Your task to perform on an android device: Clear the cart on walmart. Search for "logitech g933" on walmart, select the first entry, and add it to the cart. Image 0: 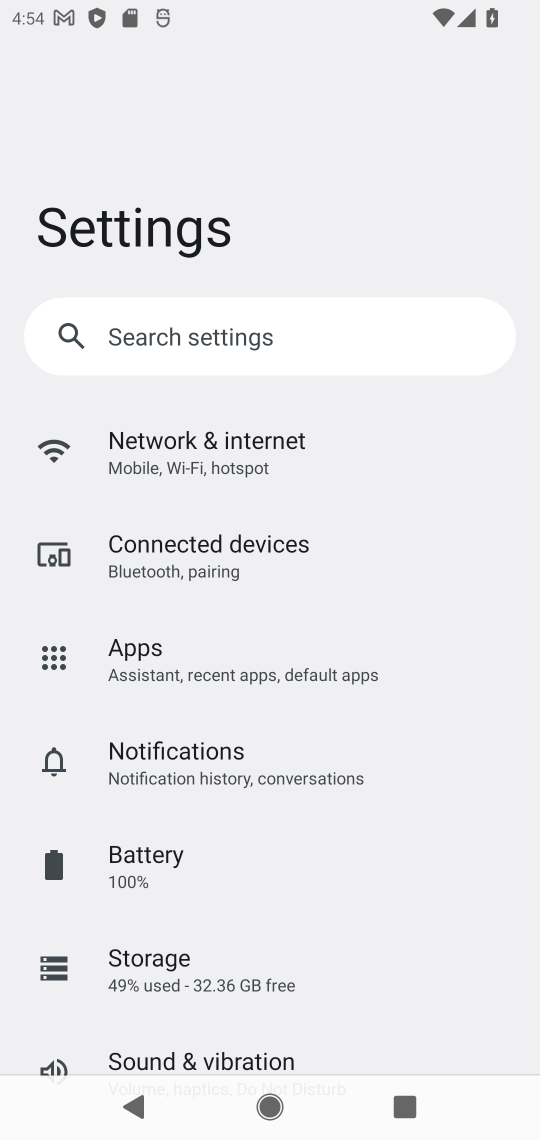
Step 0: press home button
Your task to perform on an android device: Clear the cart on walmart. Search for "logitech g933" on walmart, select the first entry, and add it to the cart. Image 1: 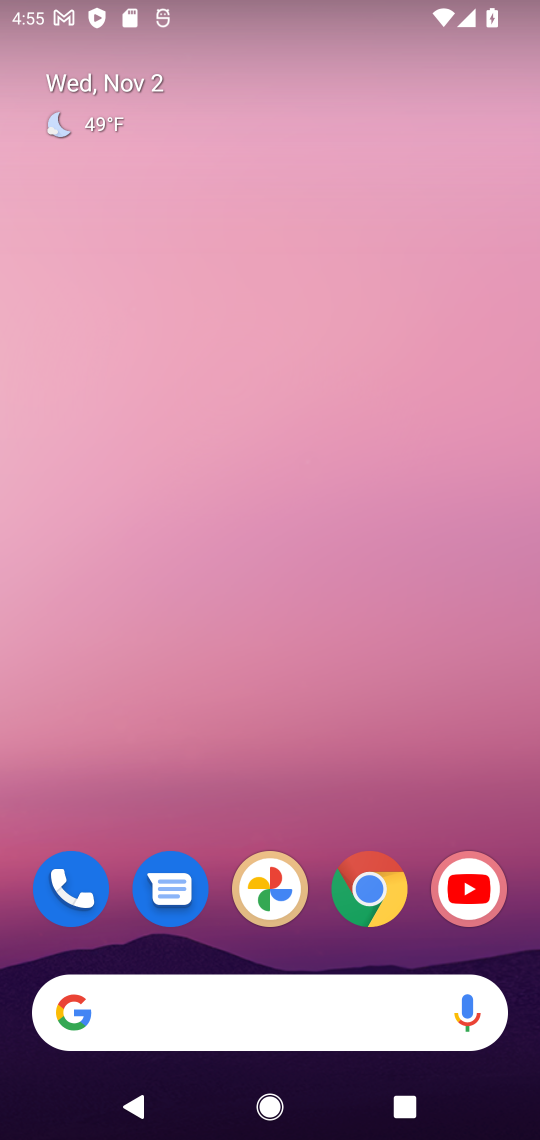
Step 1: click (377, 878)
Your task to perform on an android device: Clear the cart on walmart. Search for "logitech g933" on walmart, select the first entry, and add it to the cart. Image 2: 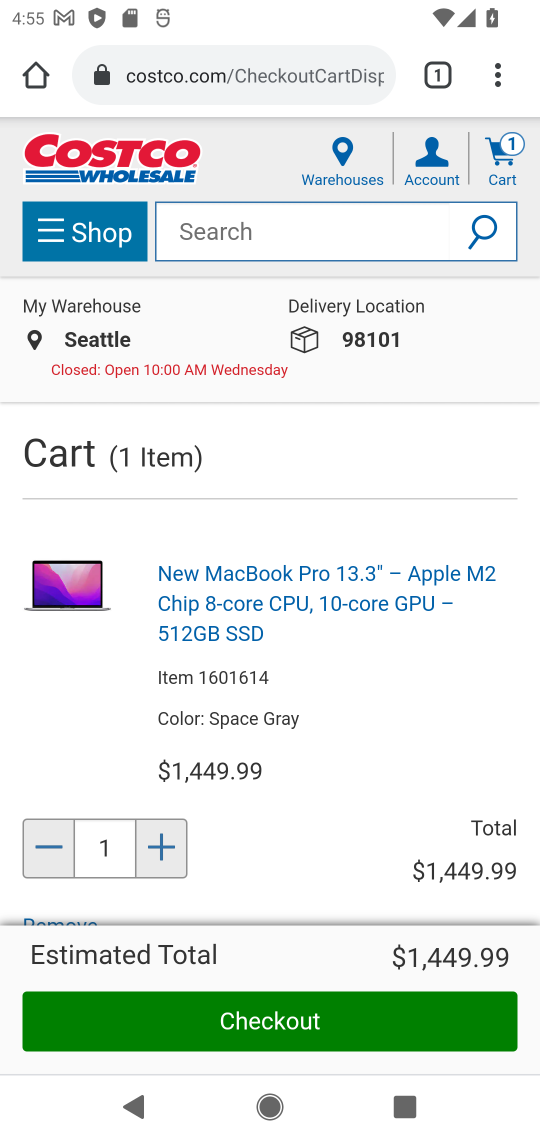
Step 2: click (312, 77)
Your task to perform on an android device: Clear the cart on walmart. Search for "logitech g933" on walmart, select the first entry, and add it to the cart. Image 3: 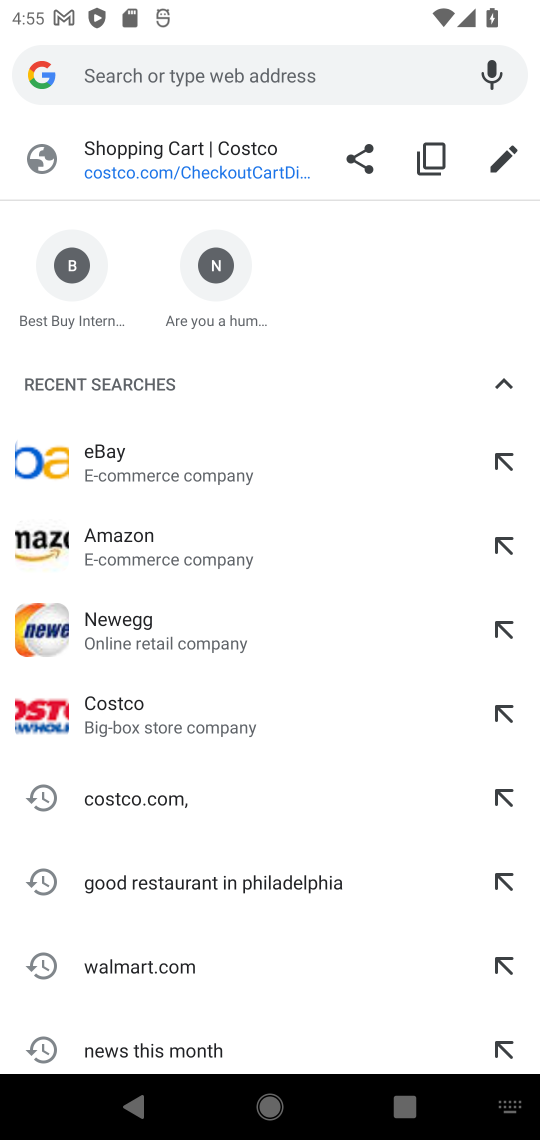
Step 3: type " walmart"
Your task to perform on an android device: Clear the cart on walmart. Search for "logitech g933" on walmart, select the first entry, and add it to the cart. Image 4: 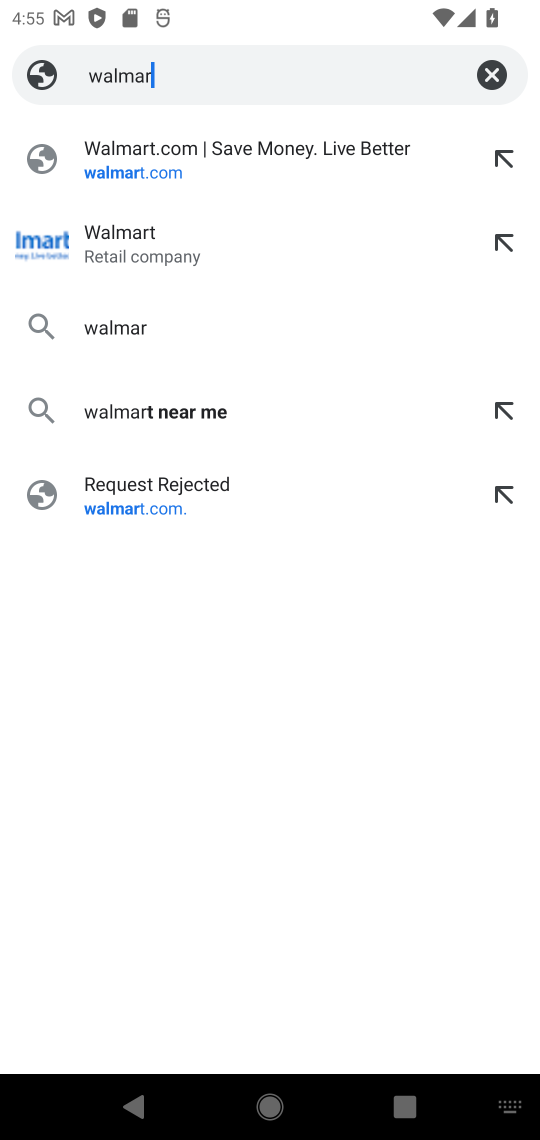
Step 4: press enter
Your task to perform on an android device: Clear the cart on walmart. Search for "logitech g933" on walmart, select the first entry, and add it to the cart. Image 5: 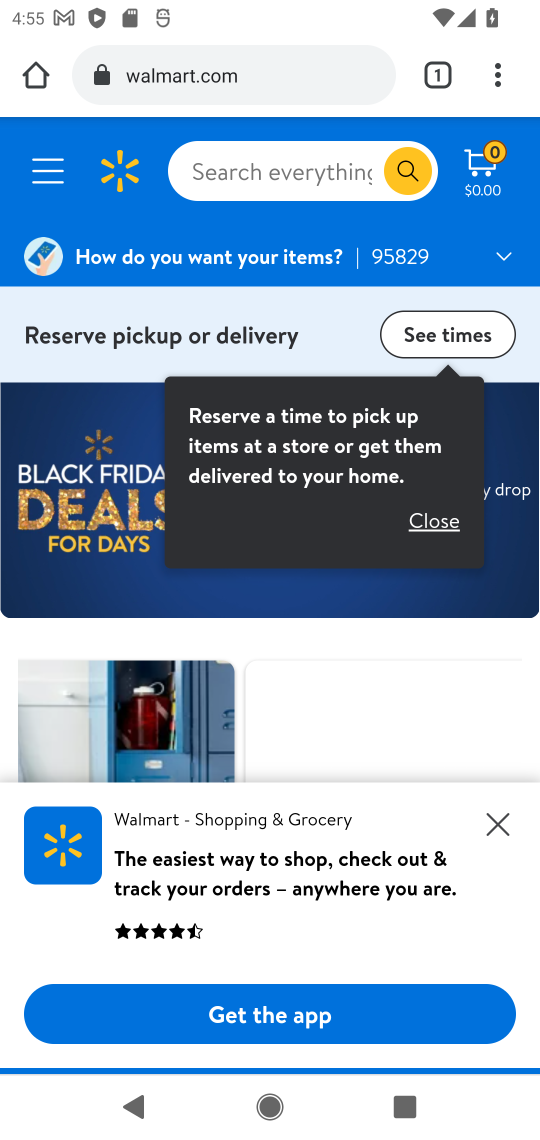
Step 5: click (332, 171)
Your task to perform on an android device: Clear the cart on walmart. Search for "logitech g933" on walmart, select the first entry, and add it to the cart. Image 6: 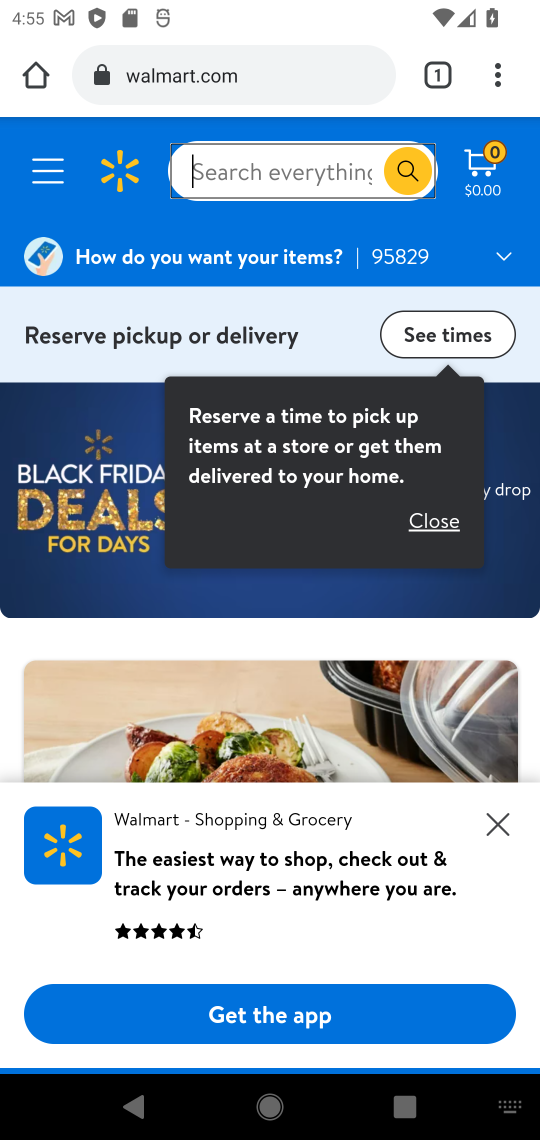
Step 6: type "logitech g933"
Your task to perform on an android device: Clear the cart on walmart. Search for "logitech g933" on walmart, select the first entry, and add it to the cart. Image 7: 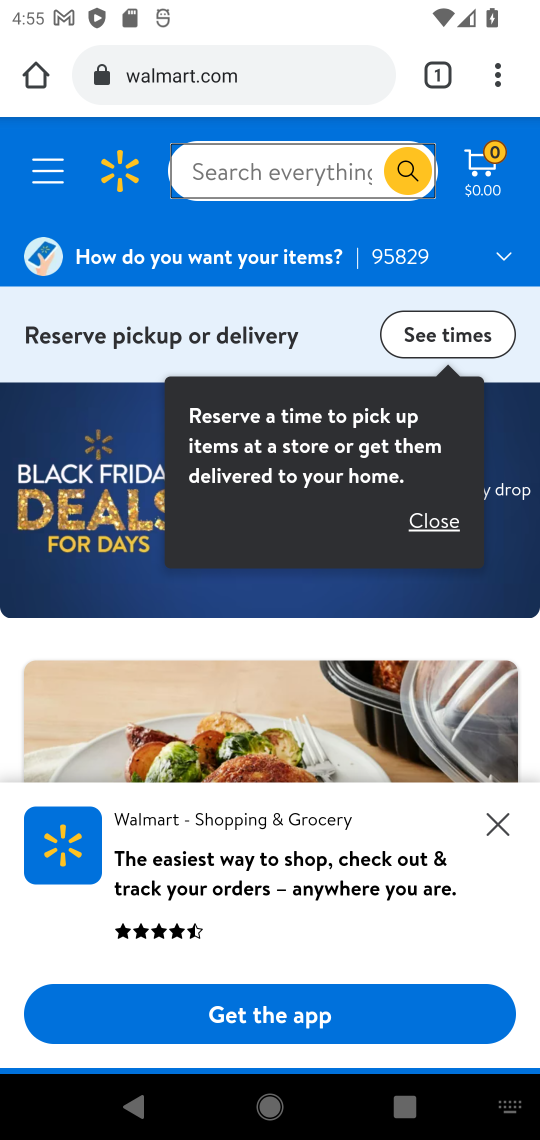
Step 7: press enter
Your task to perform on an android device: Clear the cart on walmart. Search for "logitech g933" on walmart, select the first entry, and add it to the cart. Image 8: 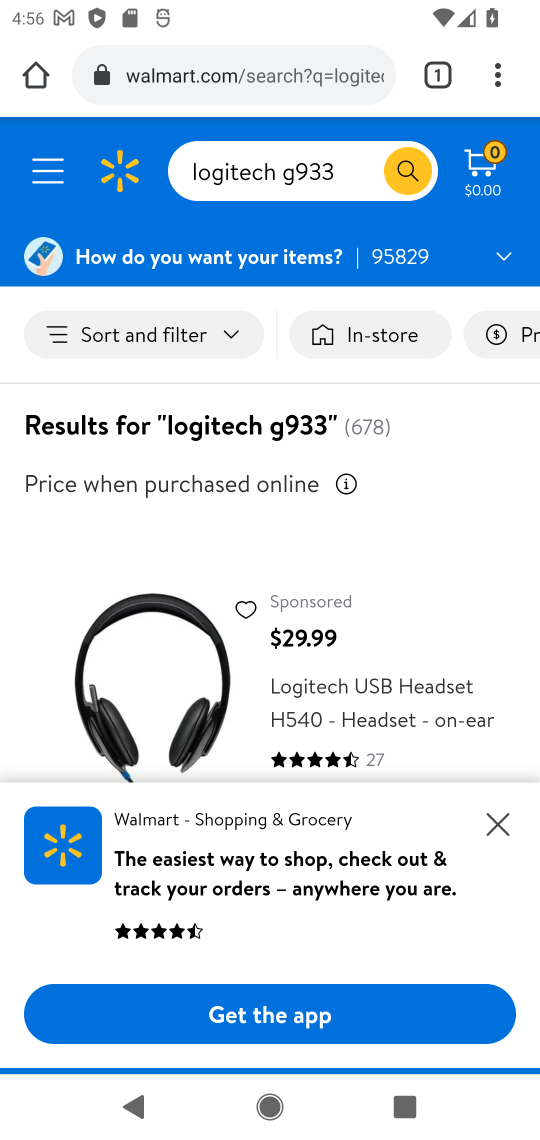
Step 8: drag from (357, 594) to (421, 361)
Your task to perform on an android device: Clear the cart on walmart. Search for "logitech g933" on walmart, select the first entry, and add it to the cart. Image 9: 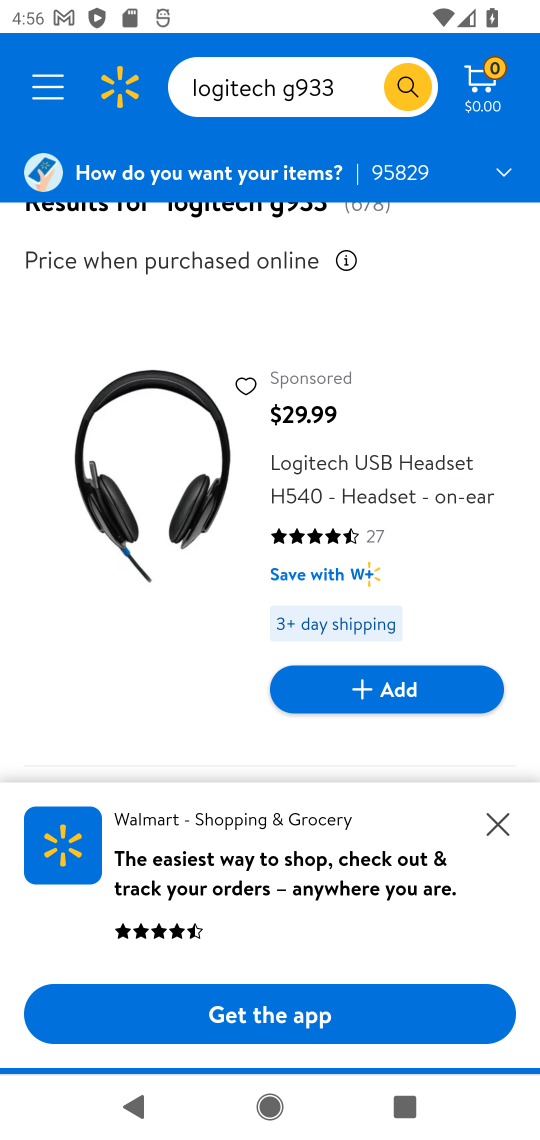
Step 9: click (486, 819)
Your task to perform on an android device: Clear the cart on walmart. Search for "logitech g933" on walmart, select the first entry, and add it to the cart. Image 10: 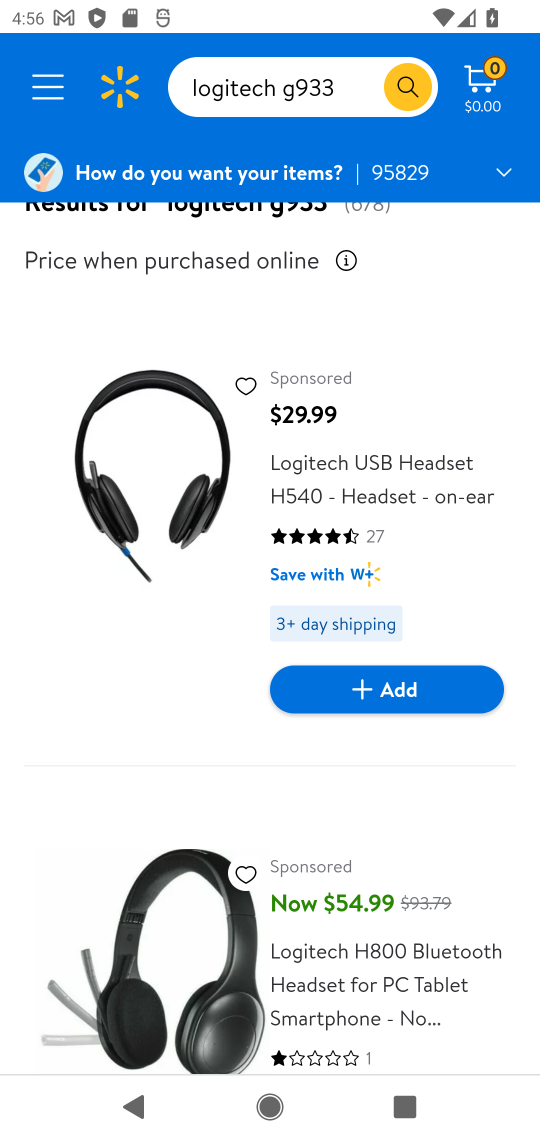
Step 10: click (414, 685)
Your task to perform on an android device: Clear the cart on walmart. Search for "logitech g933" on walmart, select the first entry, and add it to the cart. Image 11: 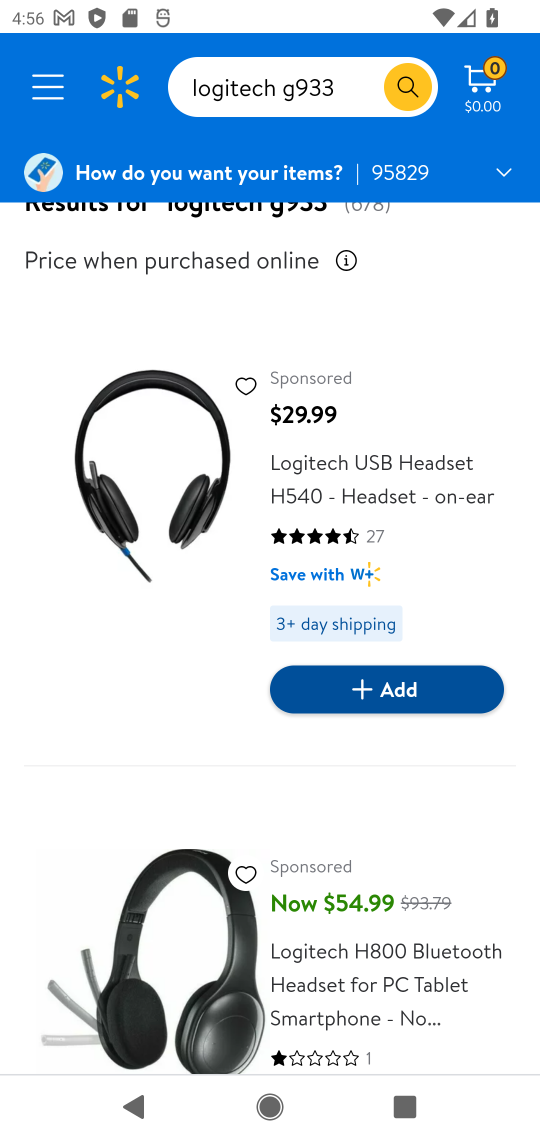
Step 11: click (400, 695)
Your task to perform on an android device: Clear the cart on walmart. Search for "logitech g933" on walmart, select the first entry, and add it to the cart. Image 12: 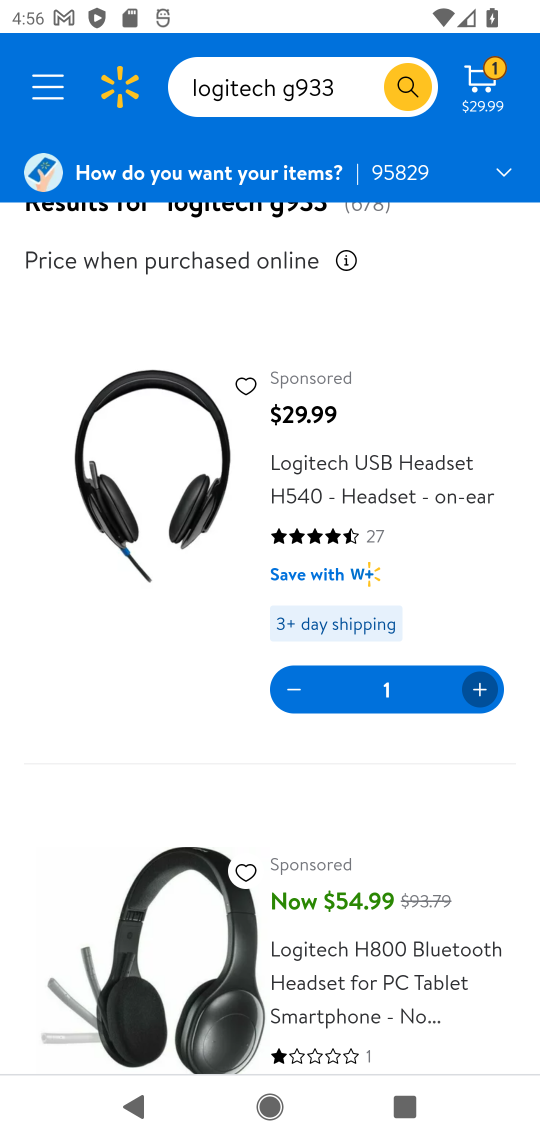
Step 12: click (492, 79)
Your task to perform on an android device: Clear the cart on walmart. Search for "logitech g933" on walmart, select the first entry, and add it to the cart. Image 13: 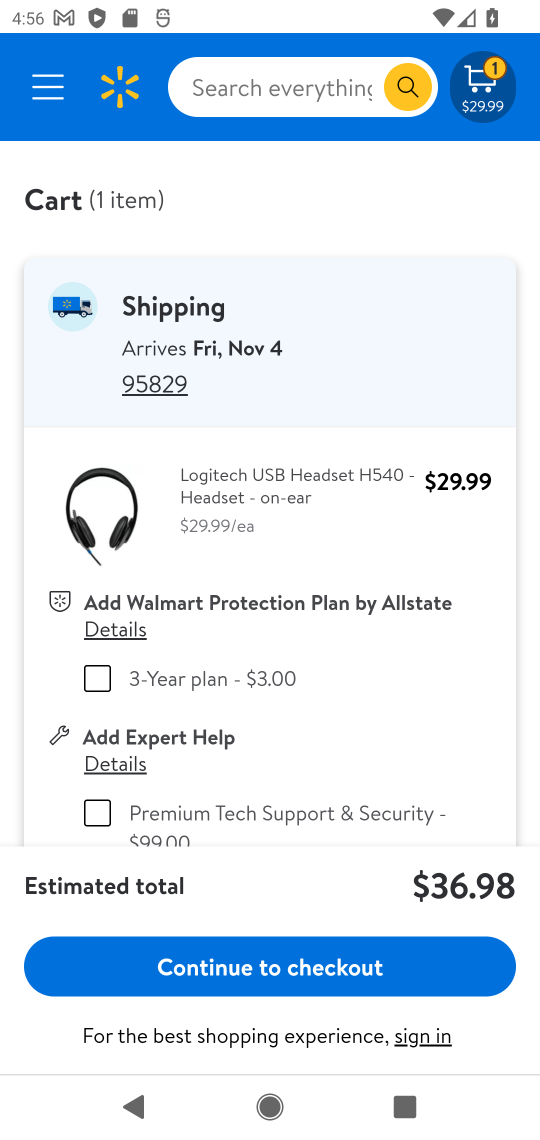
Step 13: task complete